Your task to perform on an android device: Open wifi settings Image 0: 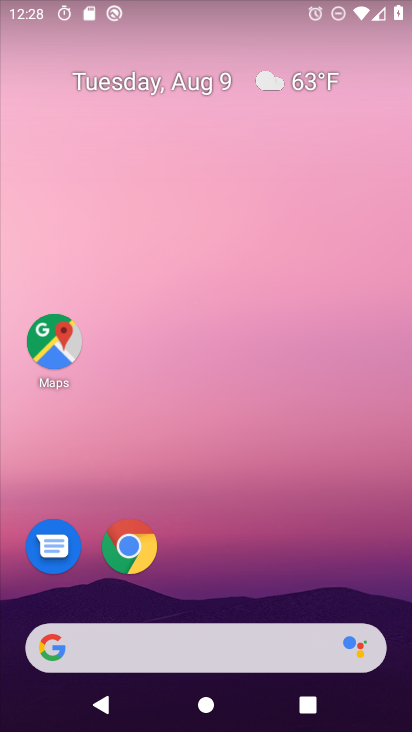
Step 0: drag from (226, 599) to (219, 11)
Your task to perform on an android device: Open wifi settings Image 1: 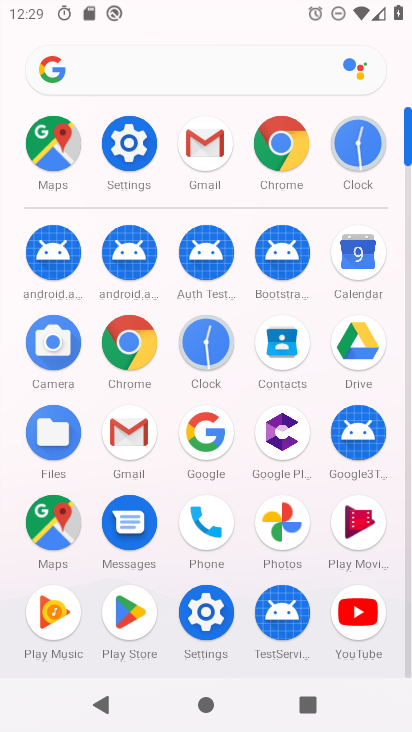
Step 1: click (126, 138)
Your task to perform on an android device: Open wifi settings Image 2: 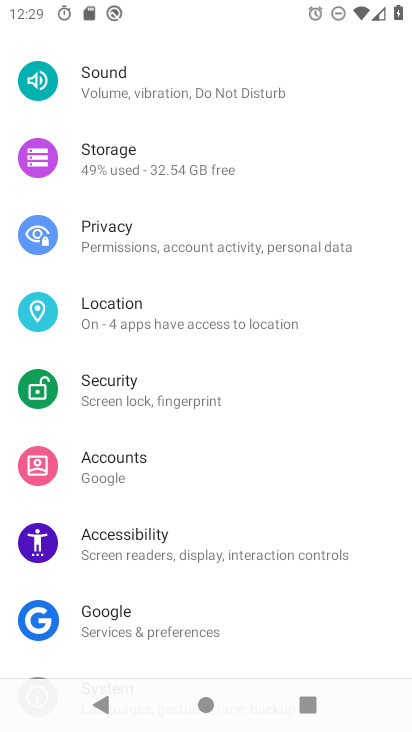
Step 2: drag from (168, 91) to (184, 667)
Your task to perform on an android device: Open wifi settings Image 3: 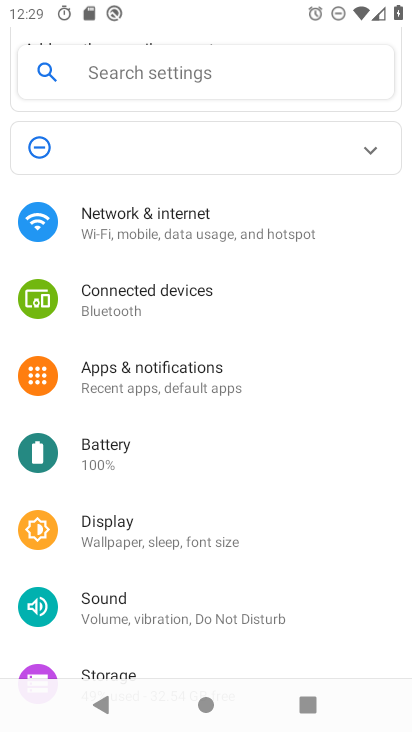
Step 3: click (164, 219)
Your task to perform on an android device: Open wifi settings Image 4: 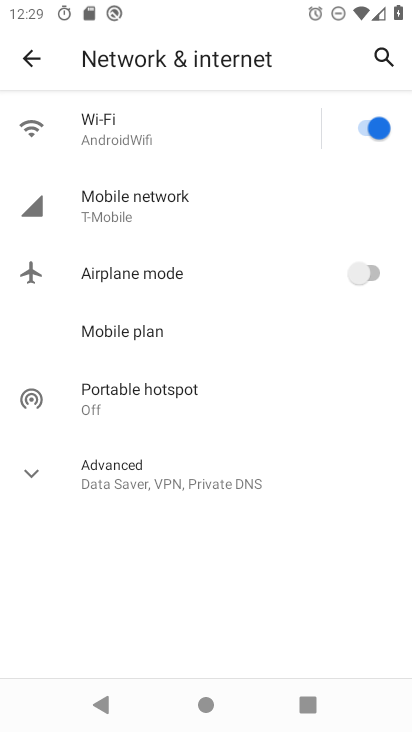
Step 4: click (180, 117)
Your task to perform on an android device: Open wifi settings Image 5: 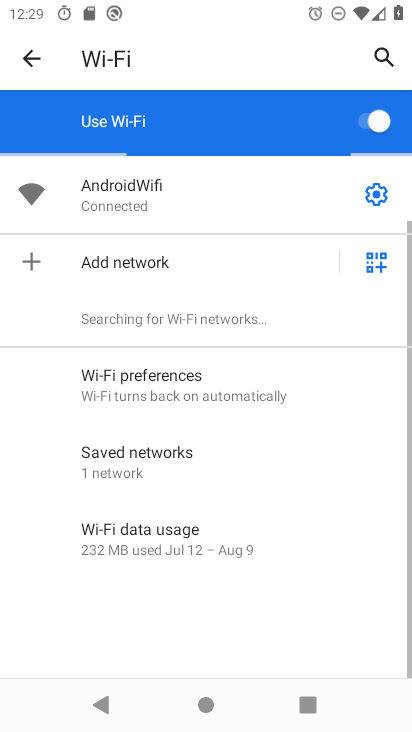
Step 5: task complete